Your task to perform on an android device: turn notification dots off Image 0: 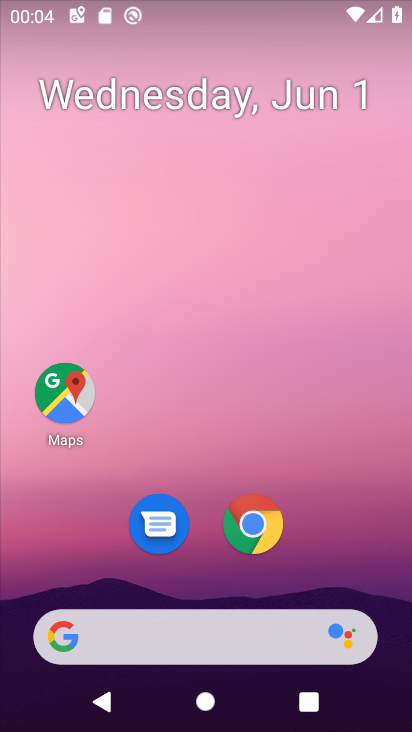
Step 0: drag from (322, 485) to (299, 14)
Your task to perform on an android device: turn notification dots off Image 1: 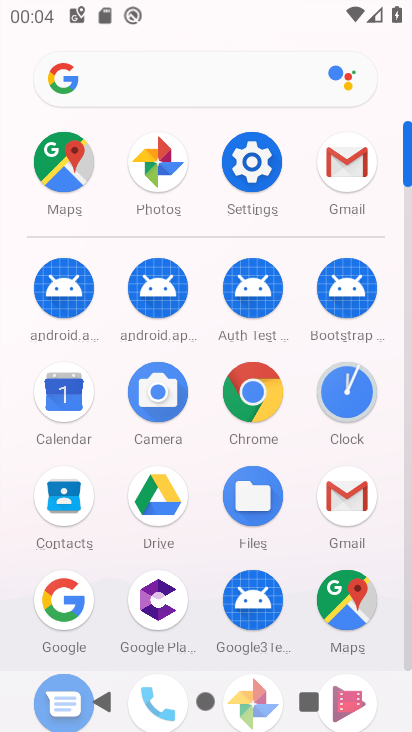
Step 1: click (249, 149)
Your task to perform on an android device: turn notification dots off Image 2: 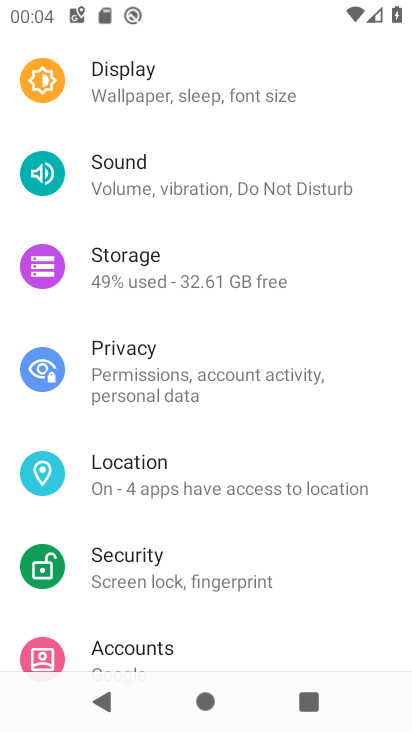
Step 2: drag from (219, 253) to (218, 640)
Your task to perform on an android device: turn notification dots off Image 3: 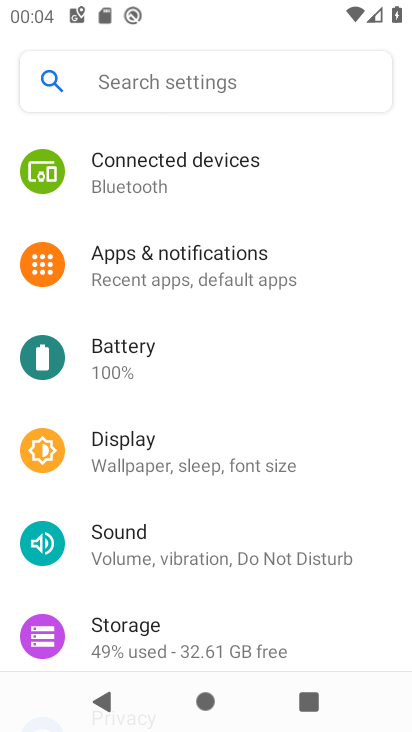
Step 3: click (223, 275)
Your task to perform on an android device: turn notification dots off Image 4: 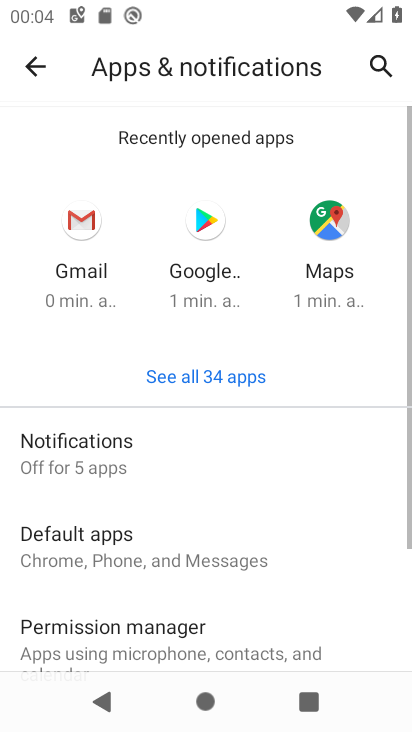
Step 4: click (193, 434)
Your task to perform on an android device: turn notification dots off Image 5: 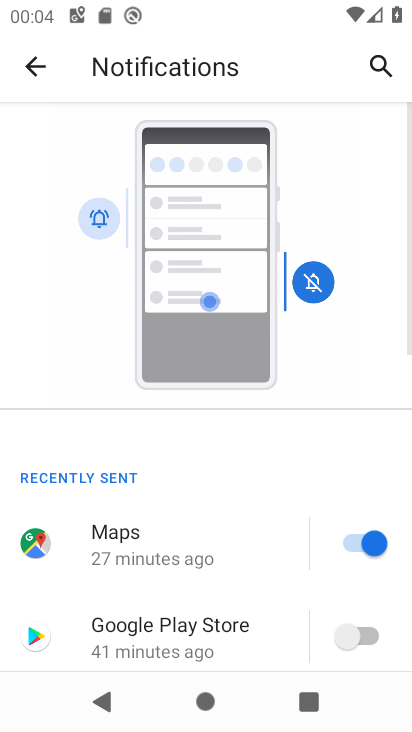
Step 5: drag from (184, 468) to (198, 140)
Your task to perform on an android device: turn notification dots off Image 6: 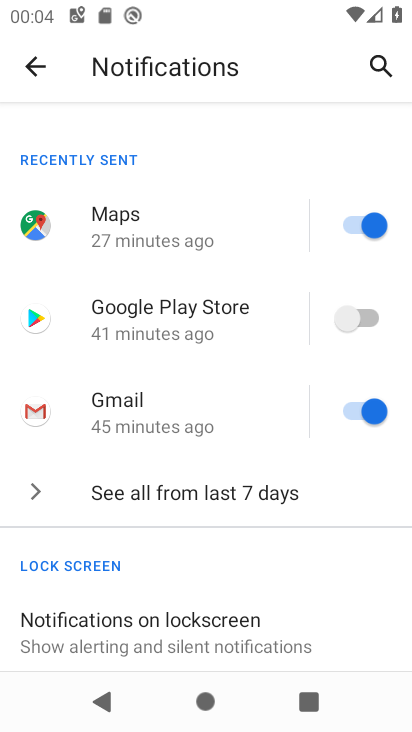
Step 6: drag from (177, 391) to (170, 79)
Your task to perform on an android device: turn notification dots off Image 7: 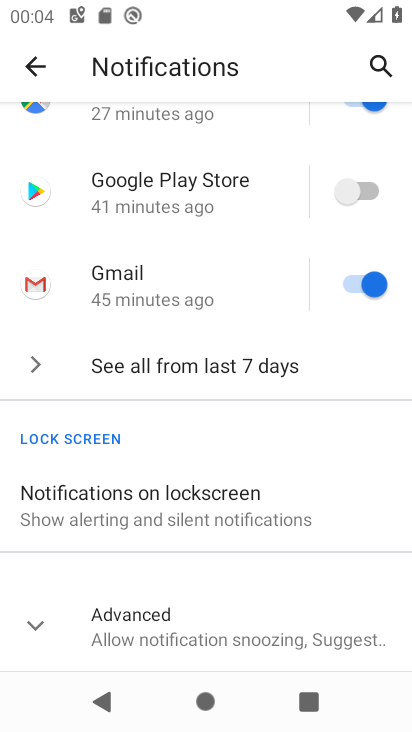
Step 7: click (37, 619)
Your task to perform on an android device: turn notification dots off Image 8: 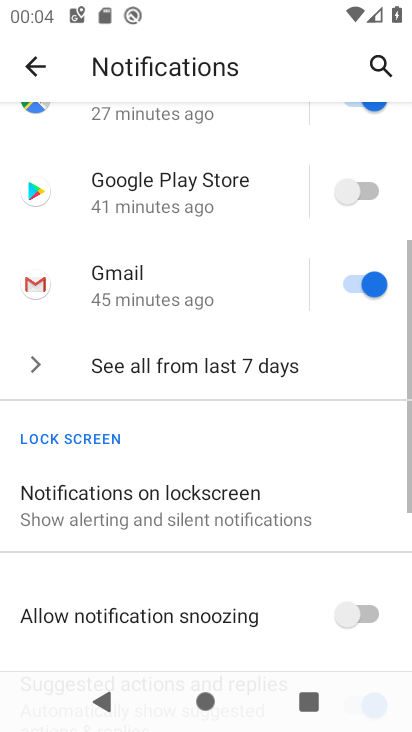
Step 8: drag from (169, 551) to (211, 79)
Your task to perform on an android device: turn notification dots off Image 9: 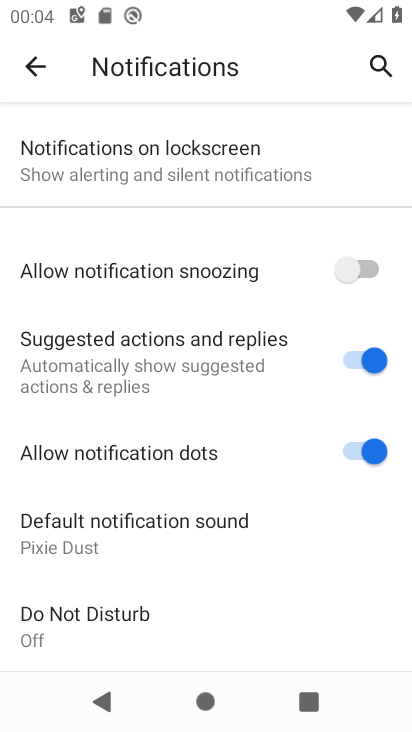
Step 9: click (358, 451)
Your task to perform on an android device: turn notification dots off Image 10: 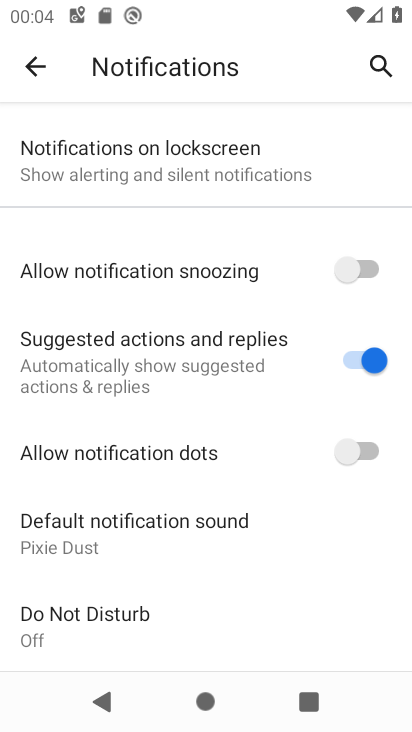
Step 10: task complete